Your task to perform on an android device: change text size in settings app Image 0: 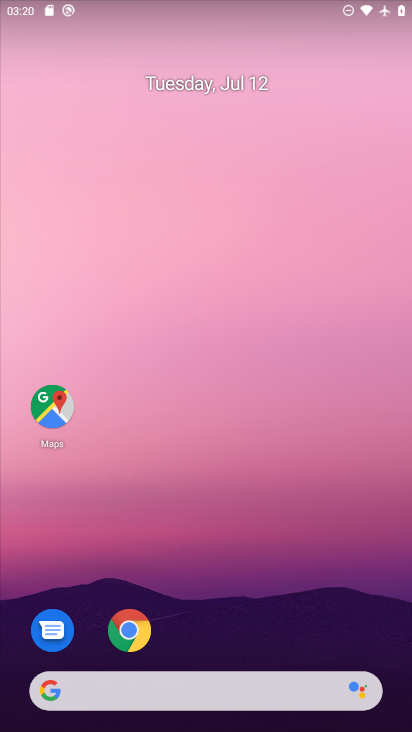
Step 0: drag from (366, 659) to (325, 83)
Your task to perform on an android device: change text size in settings app Image 1: 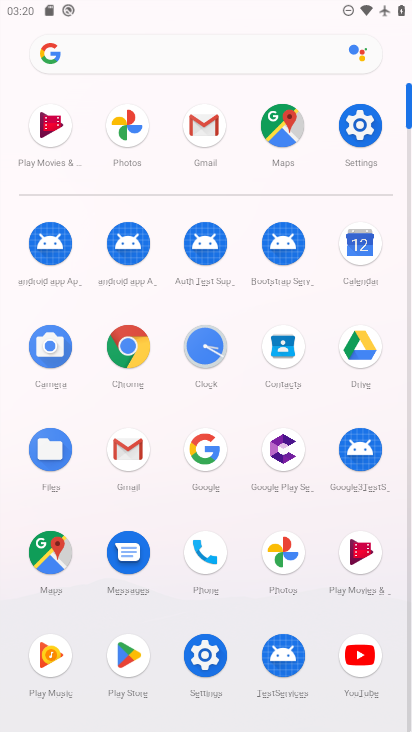
Step 1: click (204, 655)
Your task to perform on an android device: change text size in settings app Image 2: 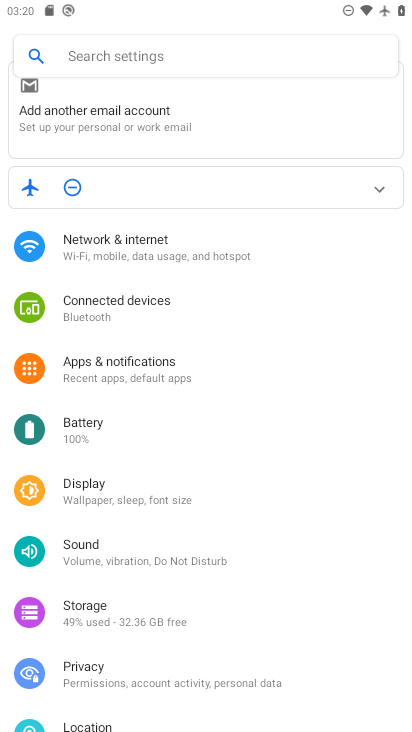
Step 2: click (82, 487)
Your task to perform on an android device: change text size in settings app Image 3: 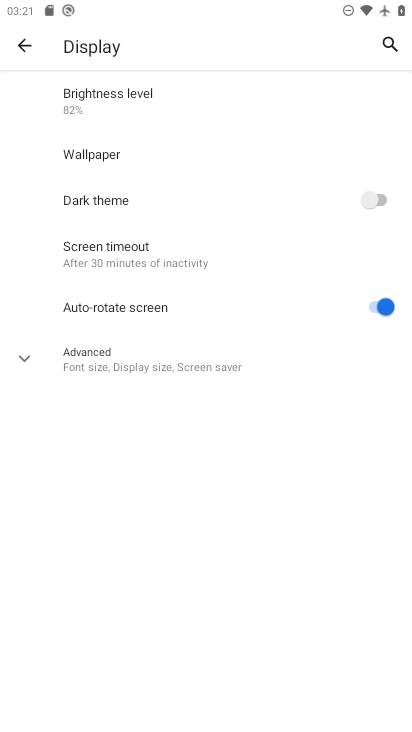
Step 3: click (24, 362)
Your task to perform on an android device: change text size in settings app Image 4: 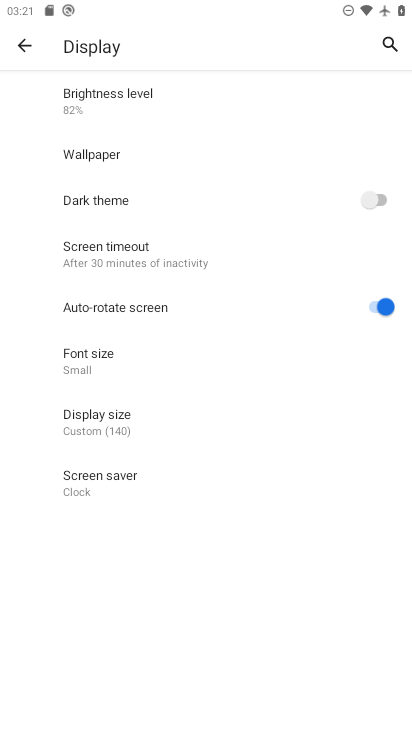
Step 4: click (83, 368)
Your task to perform on an android device: change text size in settings app Image 5: 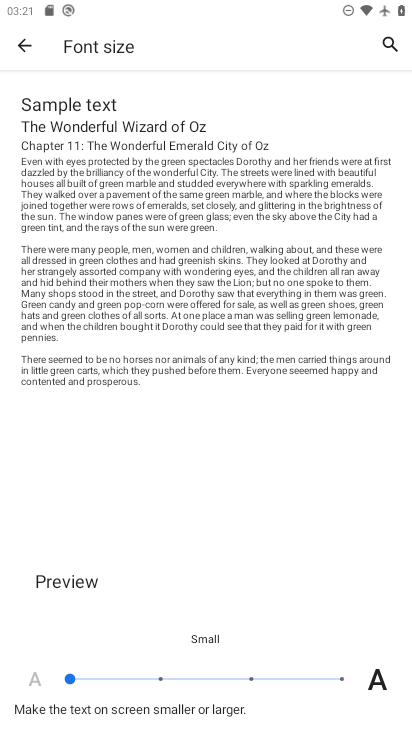
Step 5: click (246, 681)
Your task to perform on an android device: change text size in settings app Image 6: 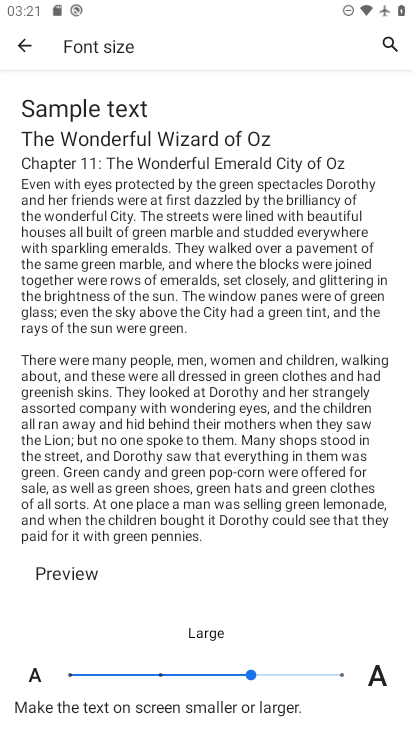
Step 6: task complete